Your task to perform on an android device: toggle sleep mode Image 0: 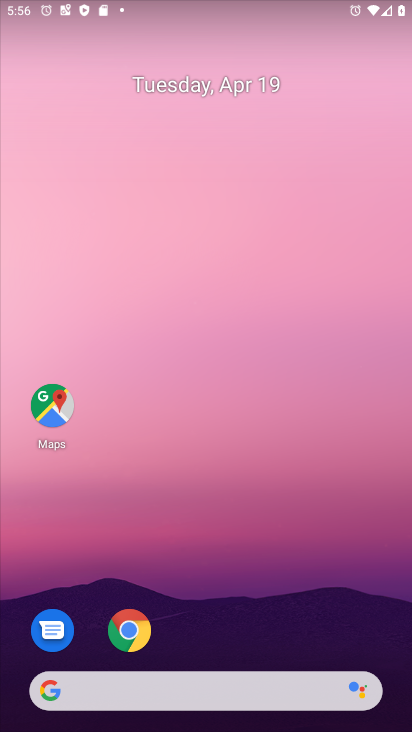
Step 0: click (316, 706)
Your task to perform on an android device: toggle sleep mode Image 1: 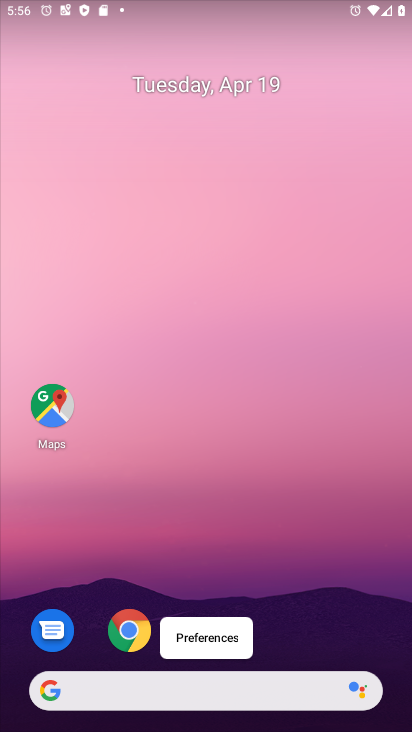
Step 1: click (316, 706)
Your task to perform on an android device: toggle sleep mode Image 2: 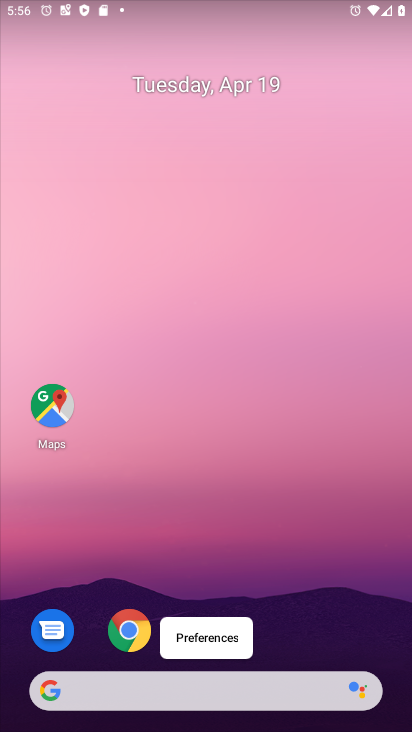
Step 2: drag from (270, 592) to (86, 286)
Your task to perform on an android device: toggle sleep mode Image 3: 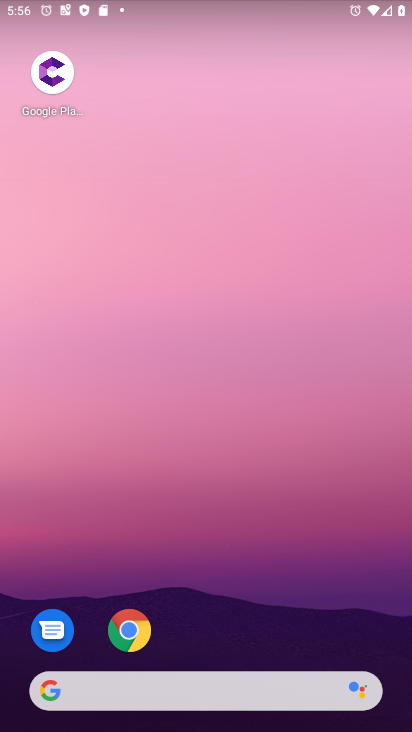
Step 3: drag from (254, 604) to (178, 188)
Your task to perform on an android device: toggle sleep mode Image 4: 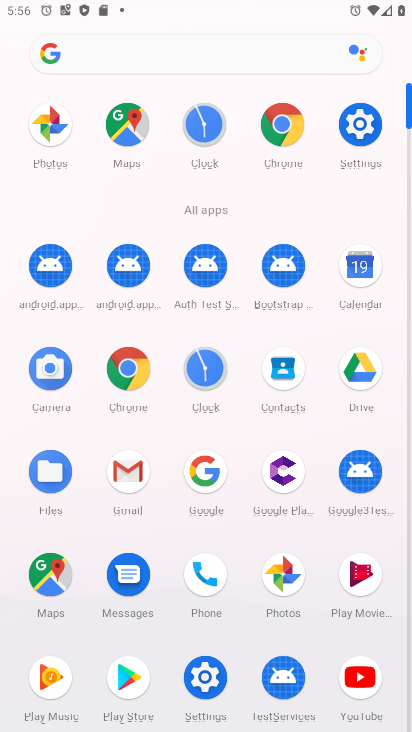
Step 4: click (359, 135)
Your task to perform on an android device: toggle sleep mode Image 5: 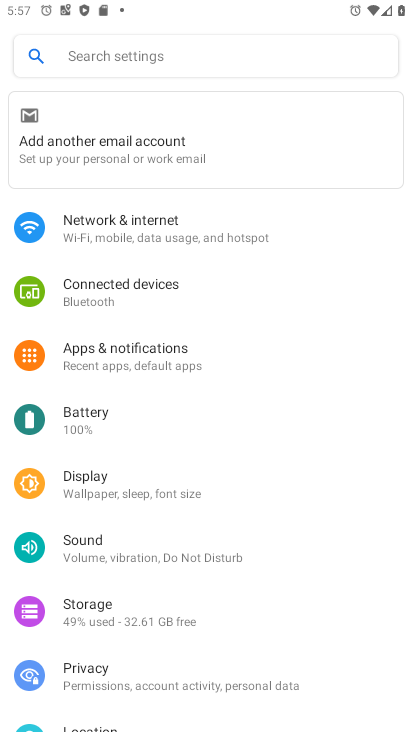
Step 5: click (174, 505)
Your task to perform on an android device: toggle sleep mode Image 6: 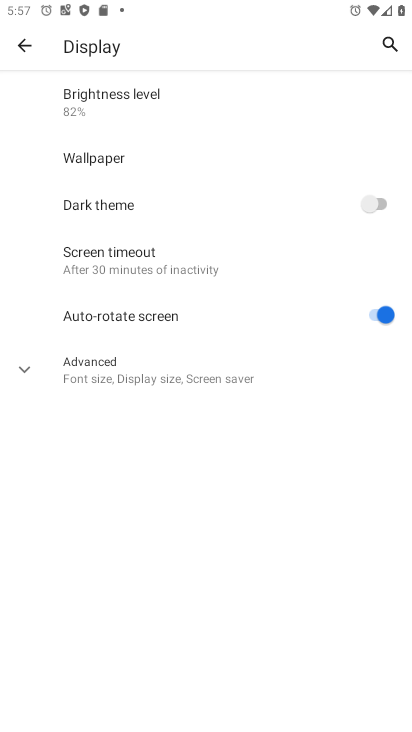
Step 6: click (158, 373)
Your task to perform on an android device: toggle sleep mode Image 7: 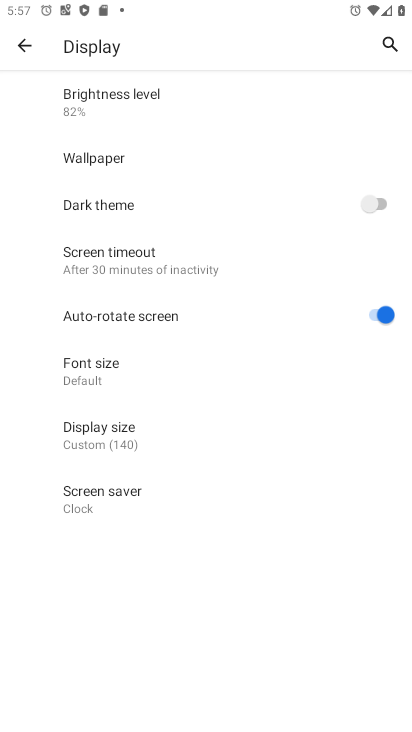
Step 7: task complete